Your task to perform on an android device: open app "Nova Launcher" (install if not already installed), go to login, and select forgot password Image 0: 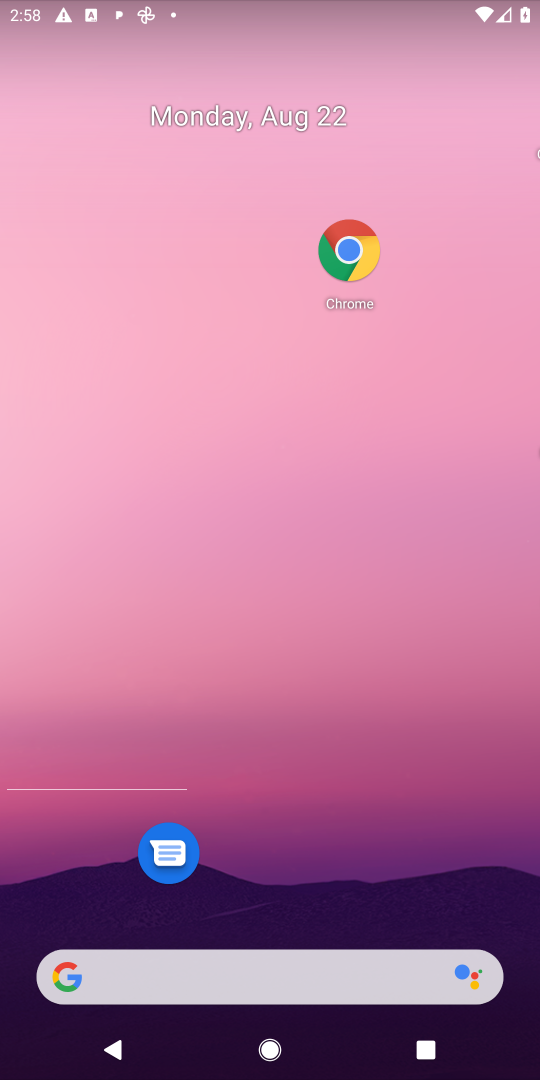
Step 0: press home button
Your task to perform on an android device: open app "Nova Launcher" (install if not already installed), go to login, and select forgot password Image 1: 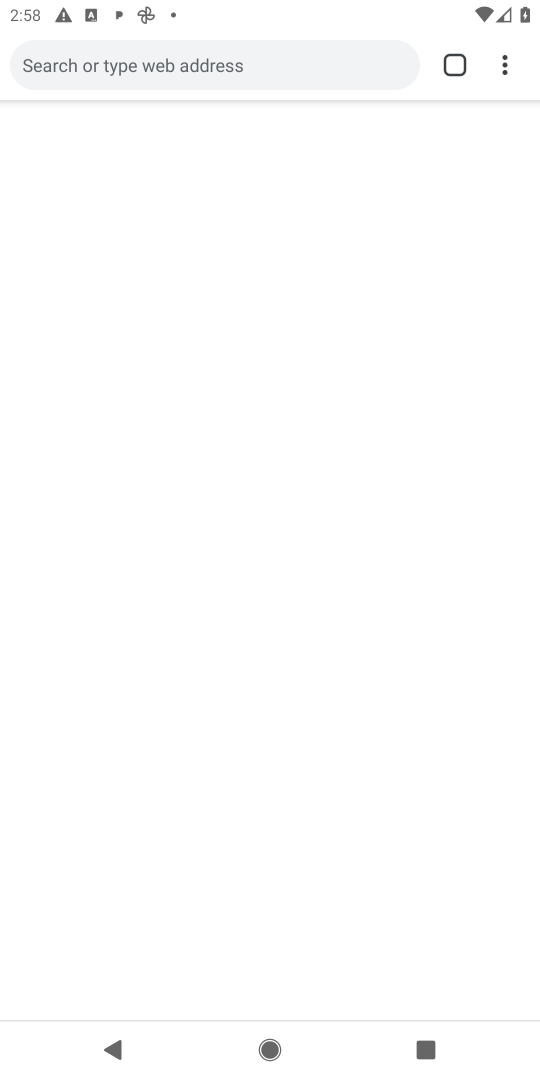
Step 1: drag from (268, 516) to (271, 378)
Your task to perform on an android device: open app "Nova Launcher" (install if not already installed), go to login, and select forgot password Image 2: 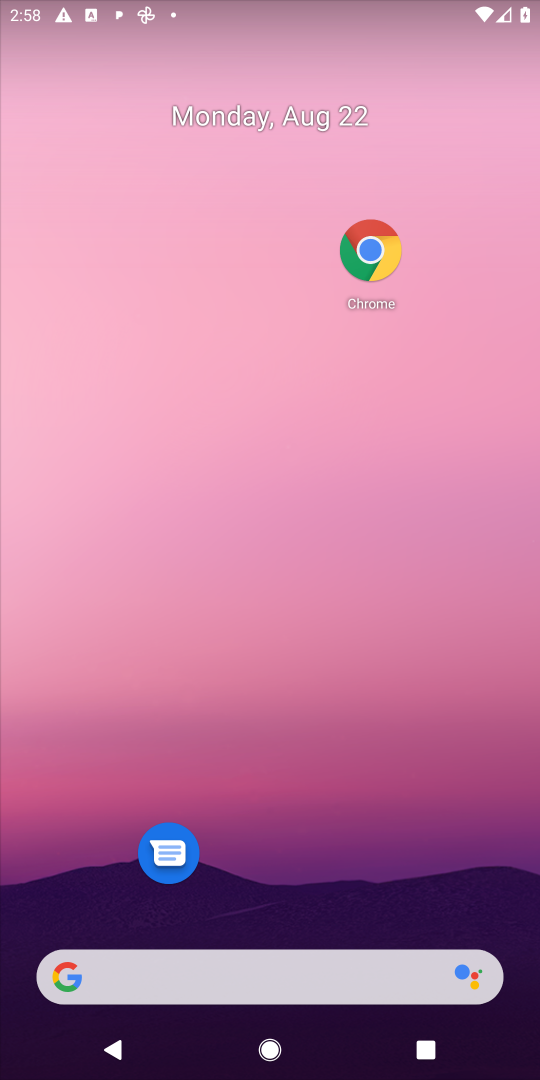
Step 2: drag from (359, 909) to (361, 234)
Your task to perform on an android device: open app "Nova Launcher" (install if not already installed), go to login, and select forgot password Image 3: 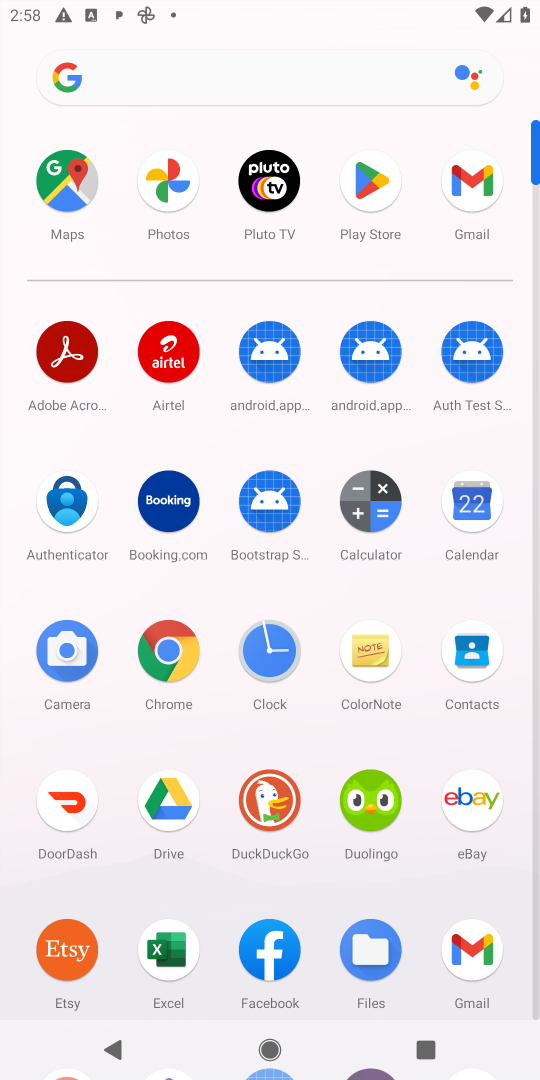
Step 3: click (366, 161)
Your task to perform on an android device: open app "Nova Launcher" (install if not already installed), go to login, and select forgot password Image 4: 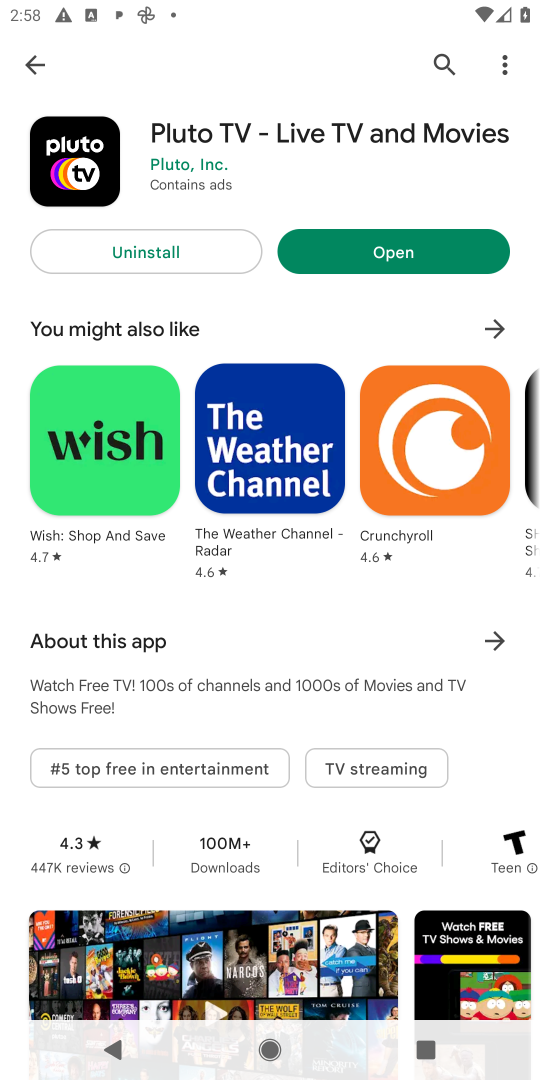
Step 4: click (16, 50)
Your task to perform on an android device: open app "Nova Launcher" (install if not already installed), go to login, and select forgot password Image 5: 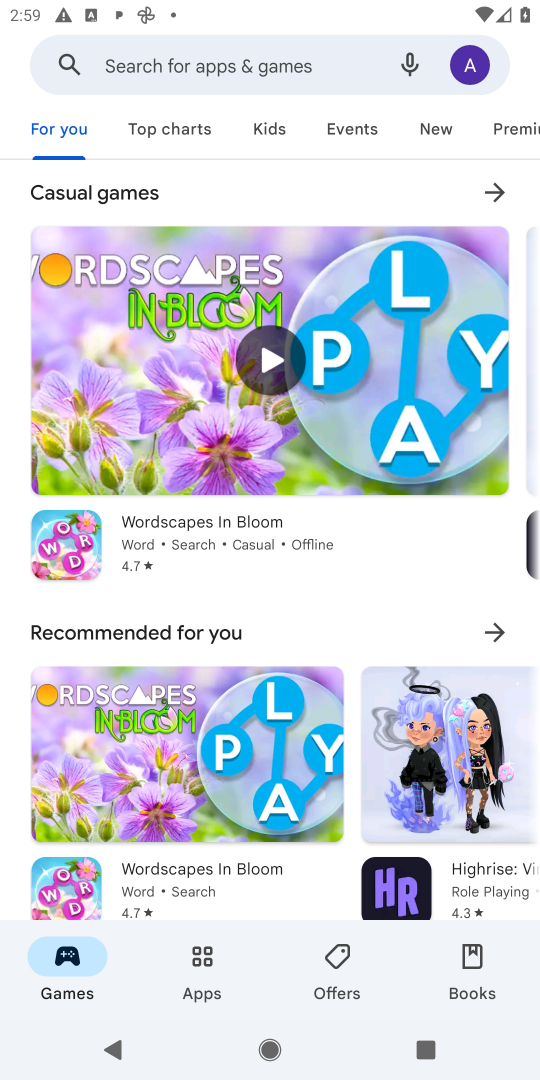
Step 5: click (174, 43)
Your task to perform on an android device: open app "Nova Launcher" (install if not already installed), go to login, and select forgot password Image 6: 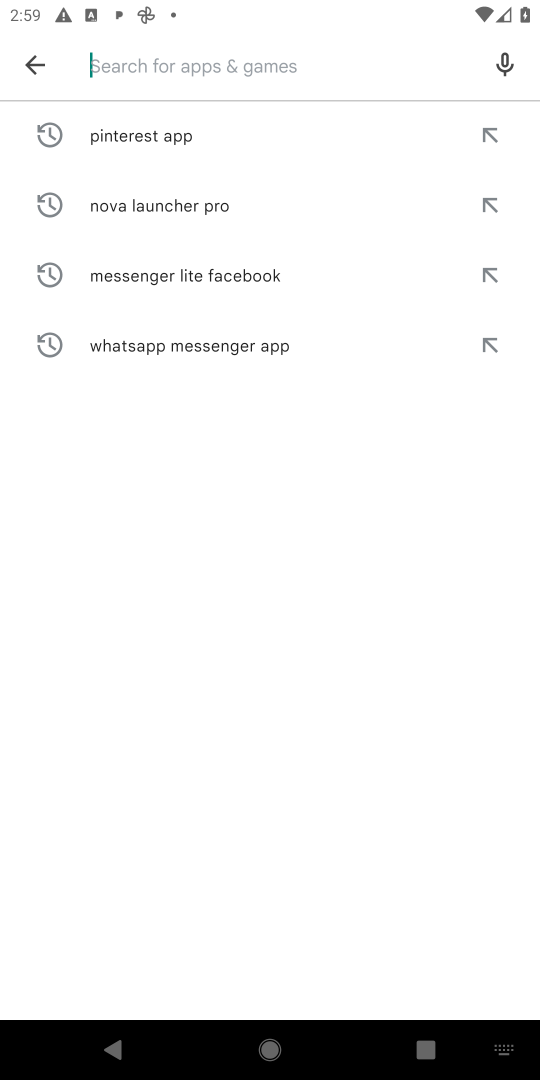
Step 6: type "Nova Launcher "
Your task to perform on an android device: open app "Nova Launcher" (install if not already installed), go to login, and select forgot password Image 7: 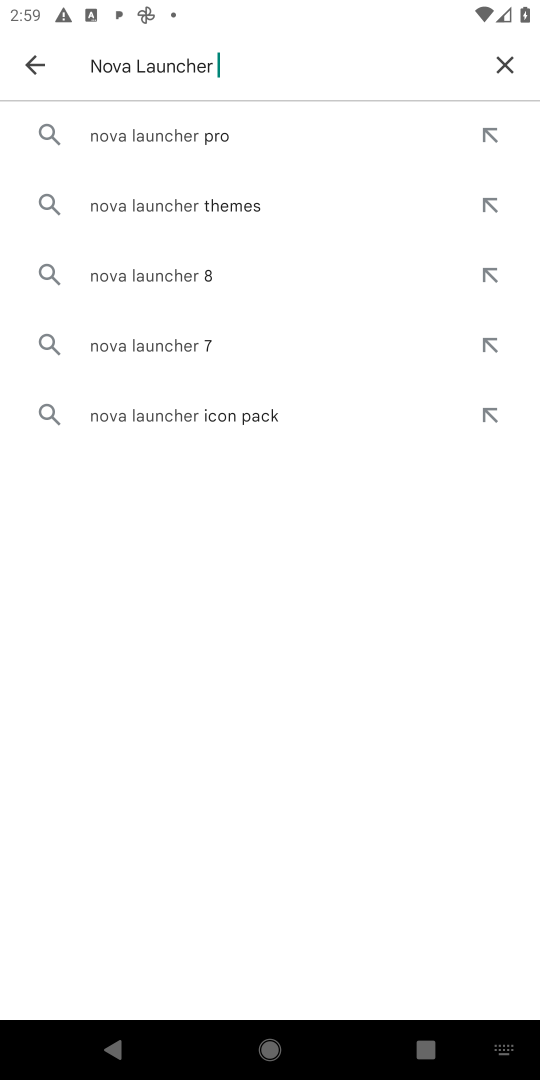
Step 7: click (170, 122)
Your task to perform on an android device: open app "Nova Launcher" (install if not already installed), go to login, and select forgot password Image 8: 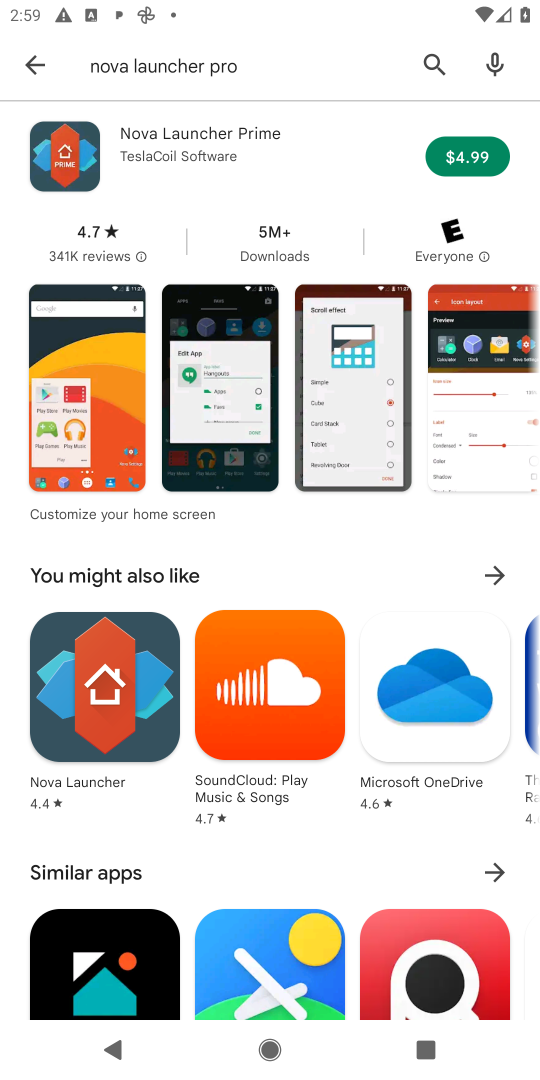
Step 8: task complete